Your task to perform on an android device: turn off location history Image 0: 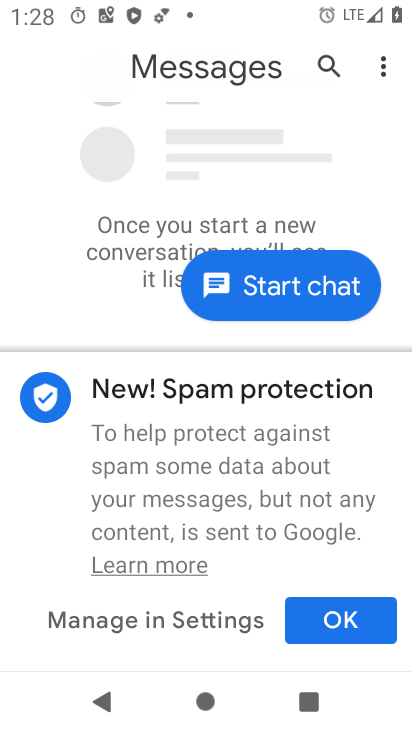
Step 0: press home button
Your task to perform on an android device: turn off location history Image 1: 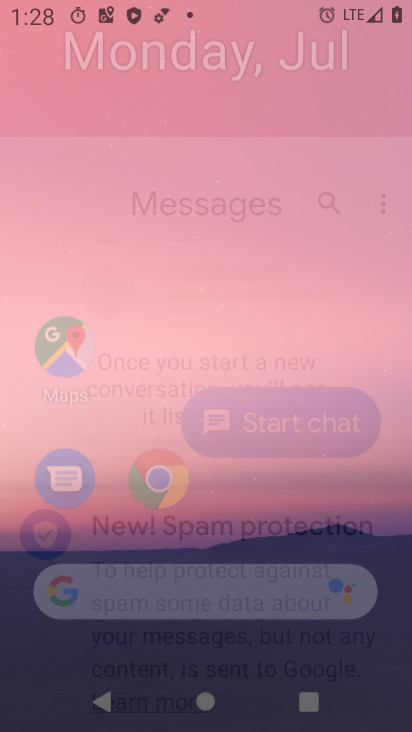
Step 1: press home button
Your task to perform on an android device: turn off location history Image 2: 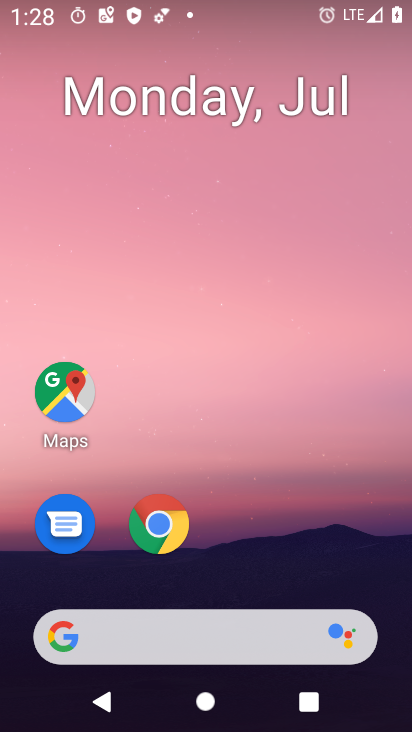
Step 2: drag from (273, 520) to (364, 20)
Your task to perform on an android device: turn off location history Image 3: 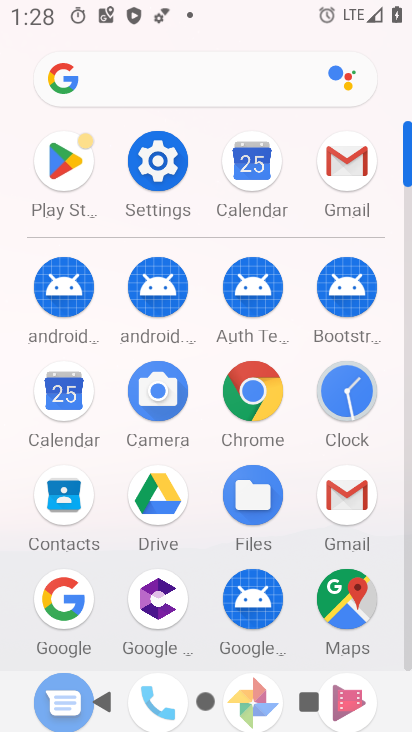
Step 3: click (150, 142)
Your task to perform on an android device: turn off location history Image 4: 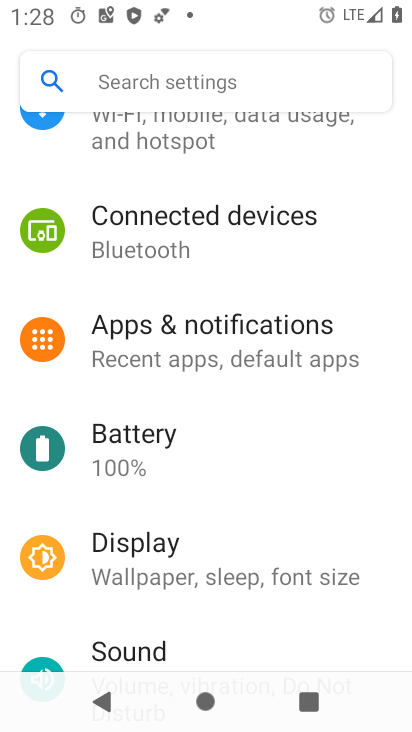
Step 4: click (193, 330)
Your task to perform on an android device: turn off location history Image 5: 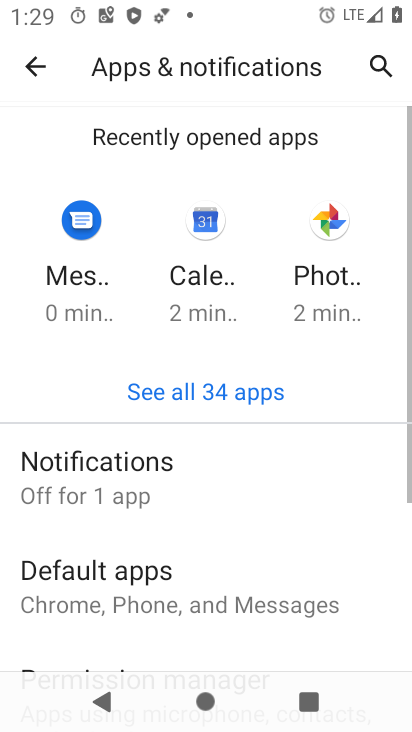
Step 5: click (156, 484)
Your task to perform on an android device: turn off location history Image 6: 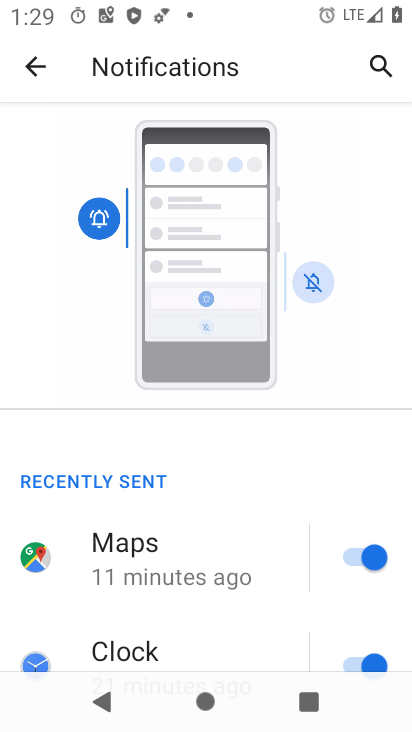
Step 6: drag from (161, 505) to (241, 154)
Your task to perform on an android device: turn off location history Image 7: 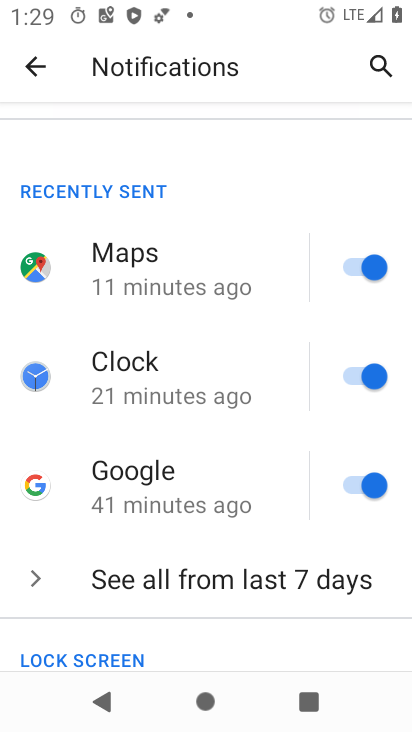
Step 7: drag from (56, 635) to (182, 175)
Your task to perform on an android device: turn off location history Image 8: 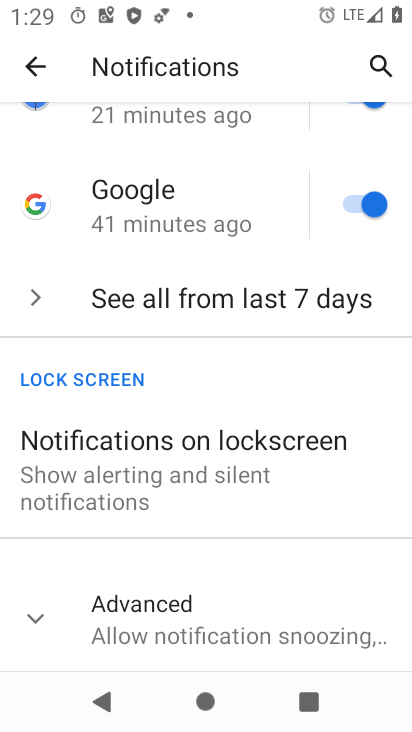
Step 8: click (41, 622)
Your task to perform on an android device: turn off location history Image 9: 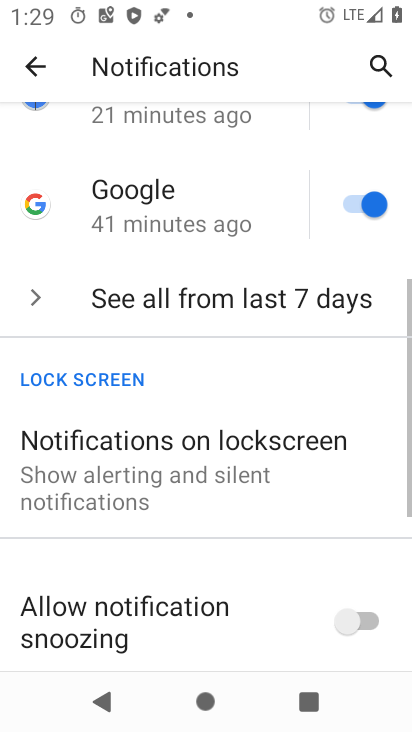
Step 9: task complete